Your task to perform on an android device: turn off location history Image 0: 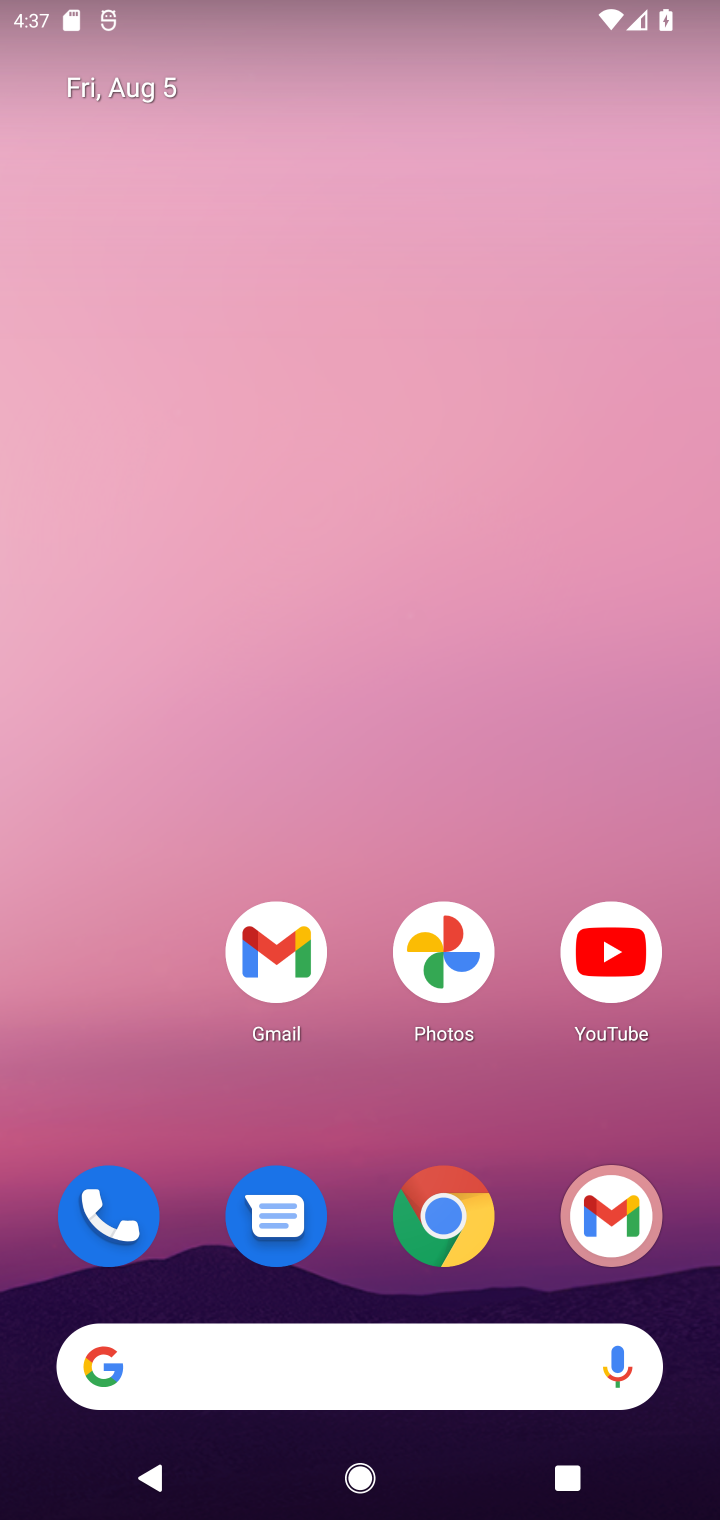
Step 0: drag from (164, 1118) to (305, 1)
Your task to perform on an android device: turn off location history Image 1: 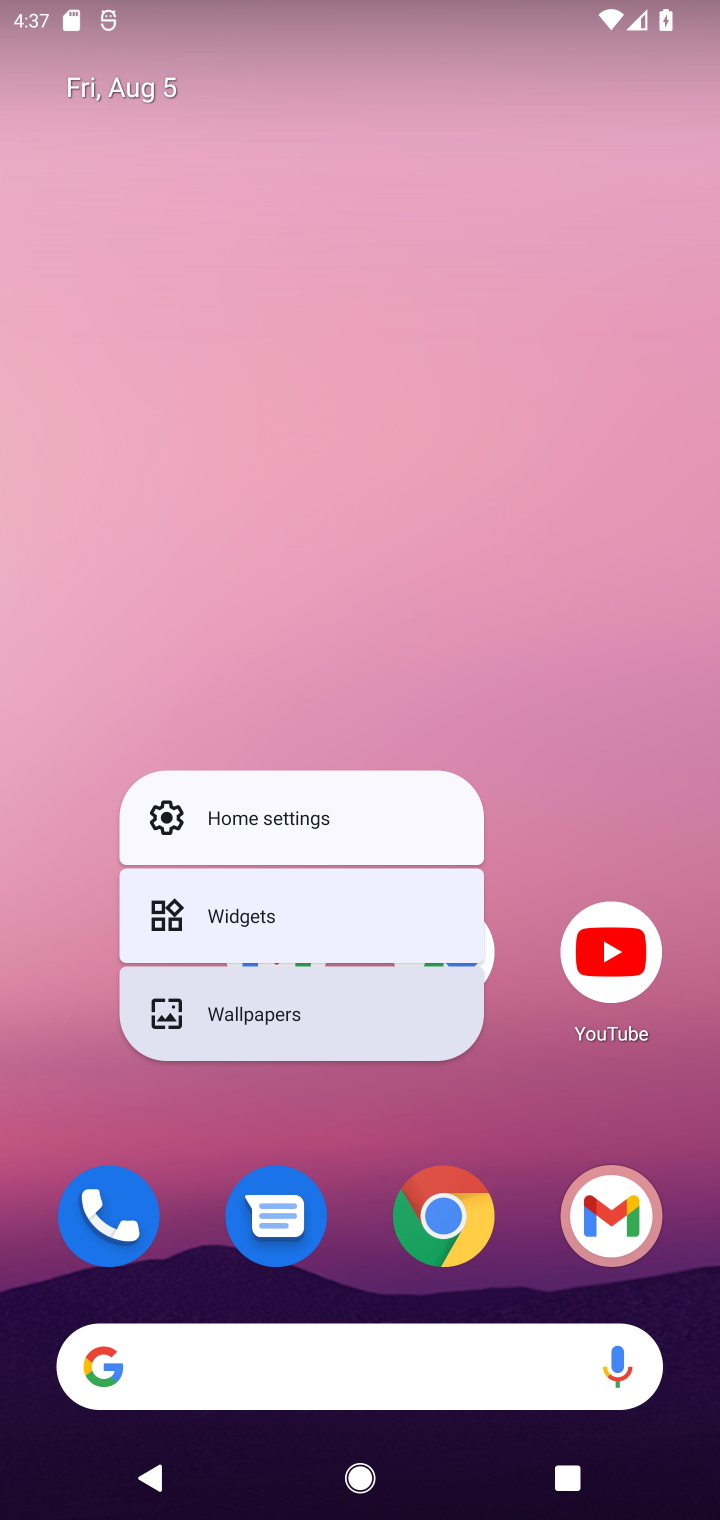
Step 1: click (381, 382)
Your task to perform on an android device: turn off location history Image 2: 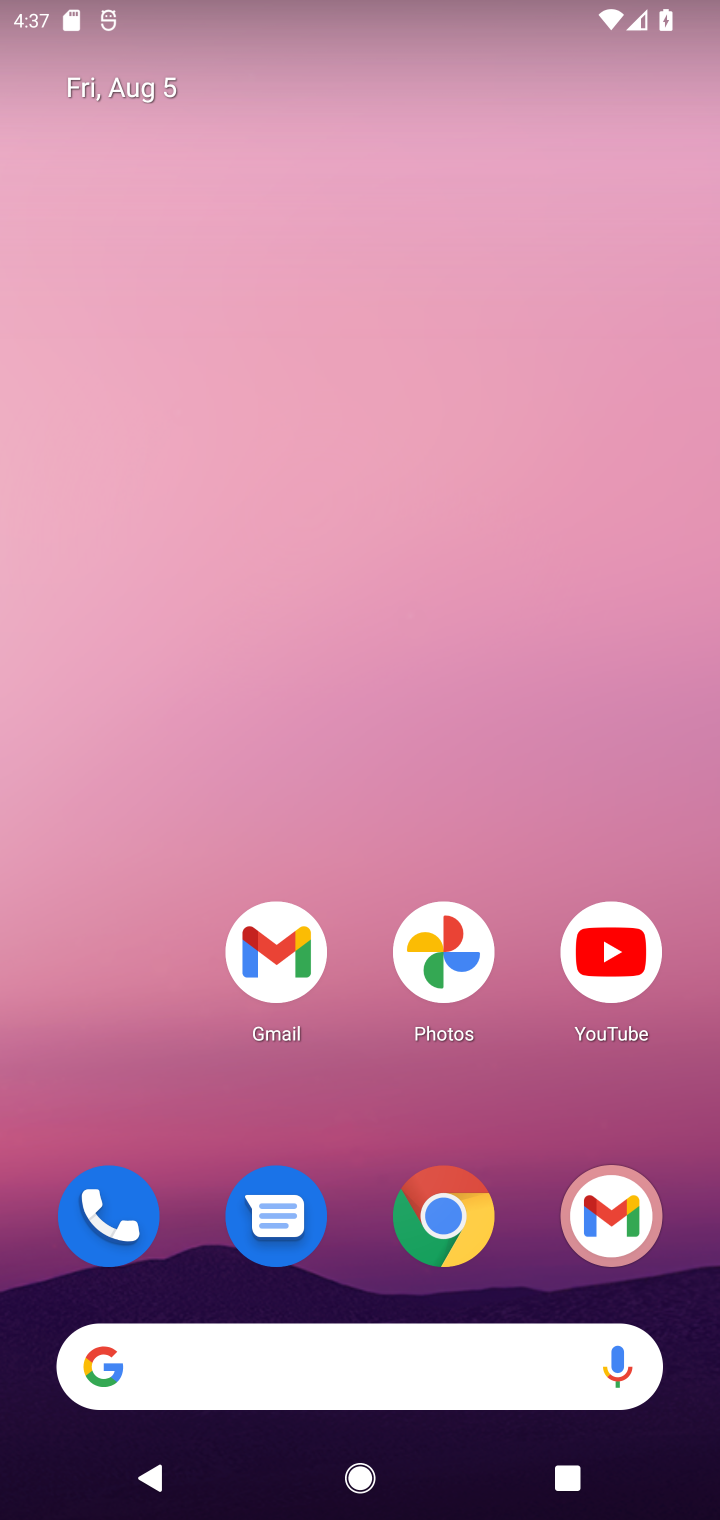
Step 2: drag from (141, 1071) to (335, 158)
Your task to perform on an android device: turn off location history Image 3: 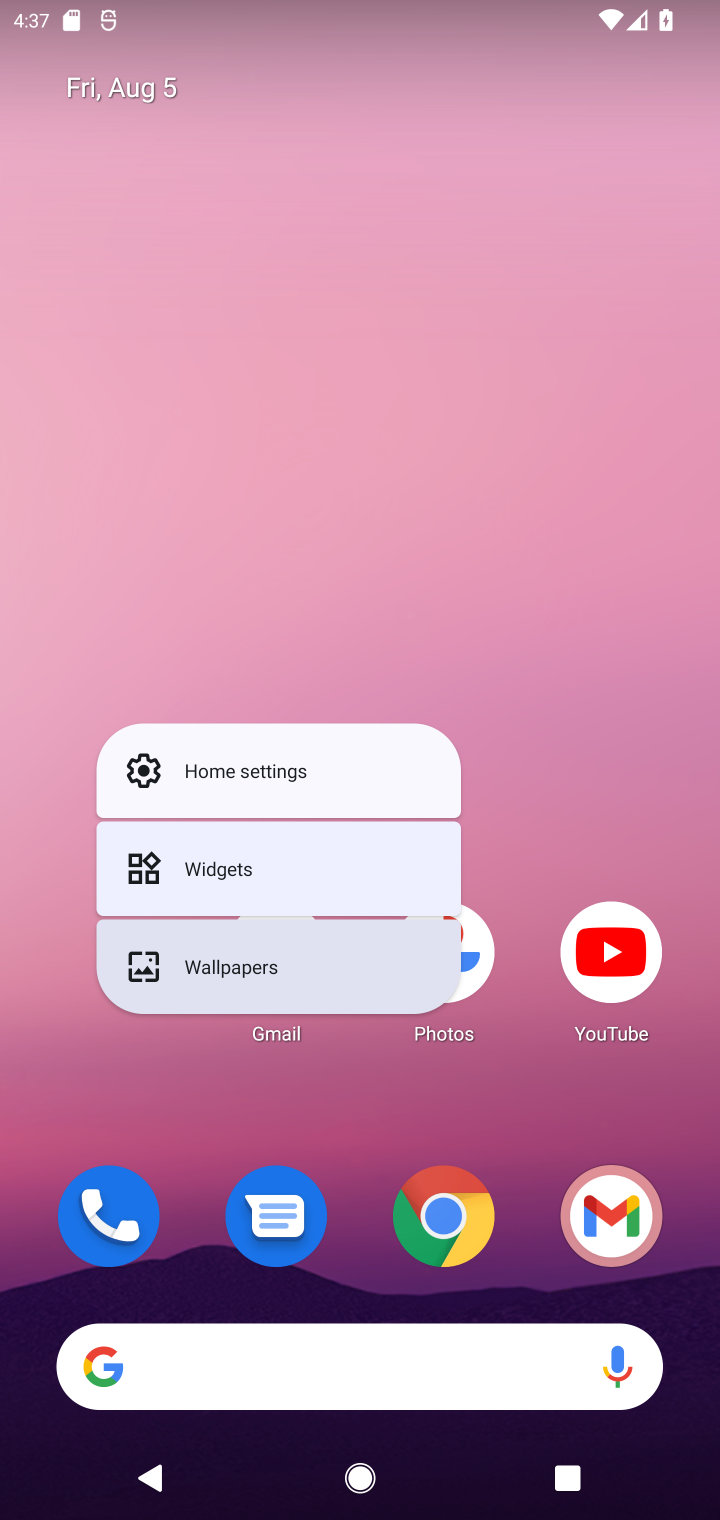
Step 3: click (547, 688)
Your task to perform on an android device: turn off location history Image 4: 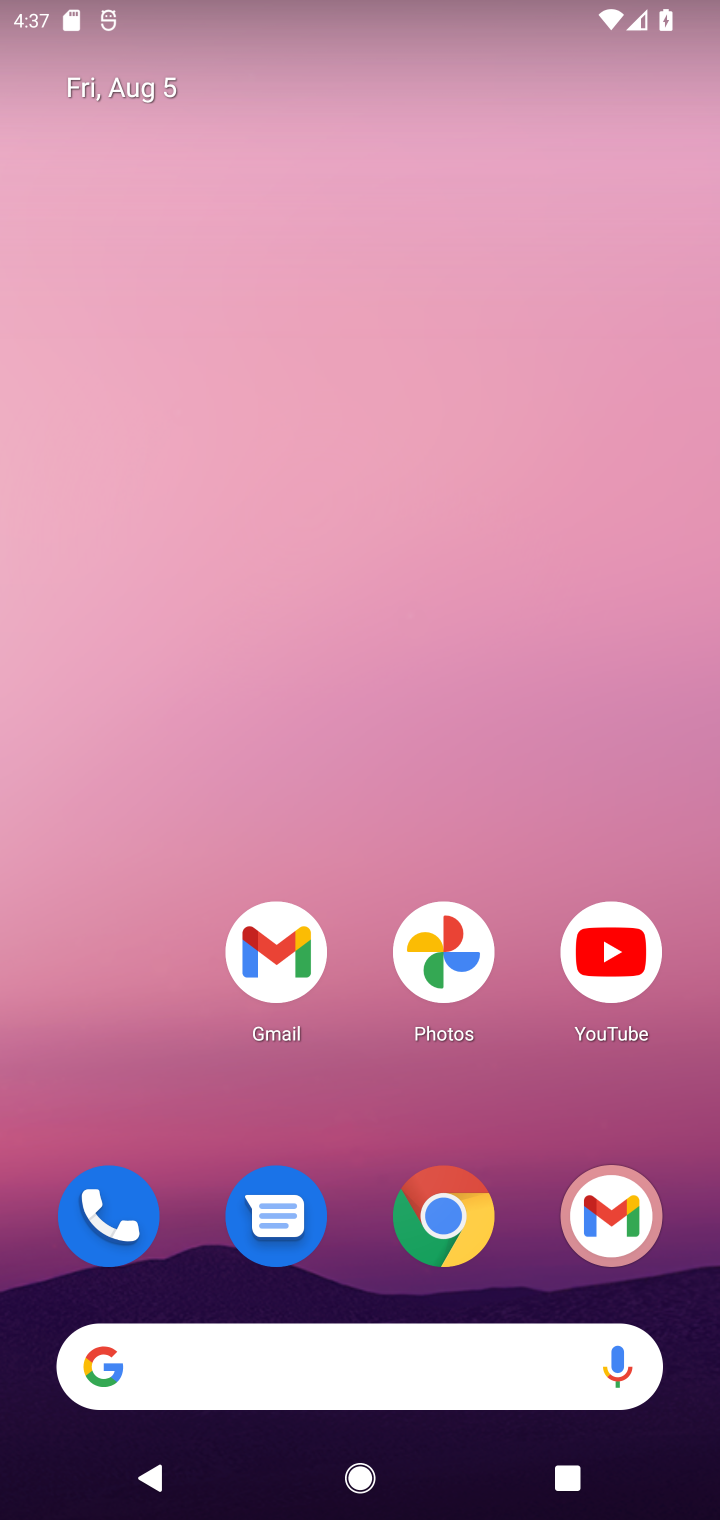
Step 4: drag from (199, 1089) to (342, 59)
Your task to perform on an android device: turn off location history Image 5: 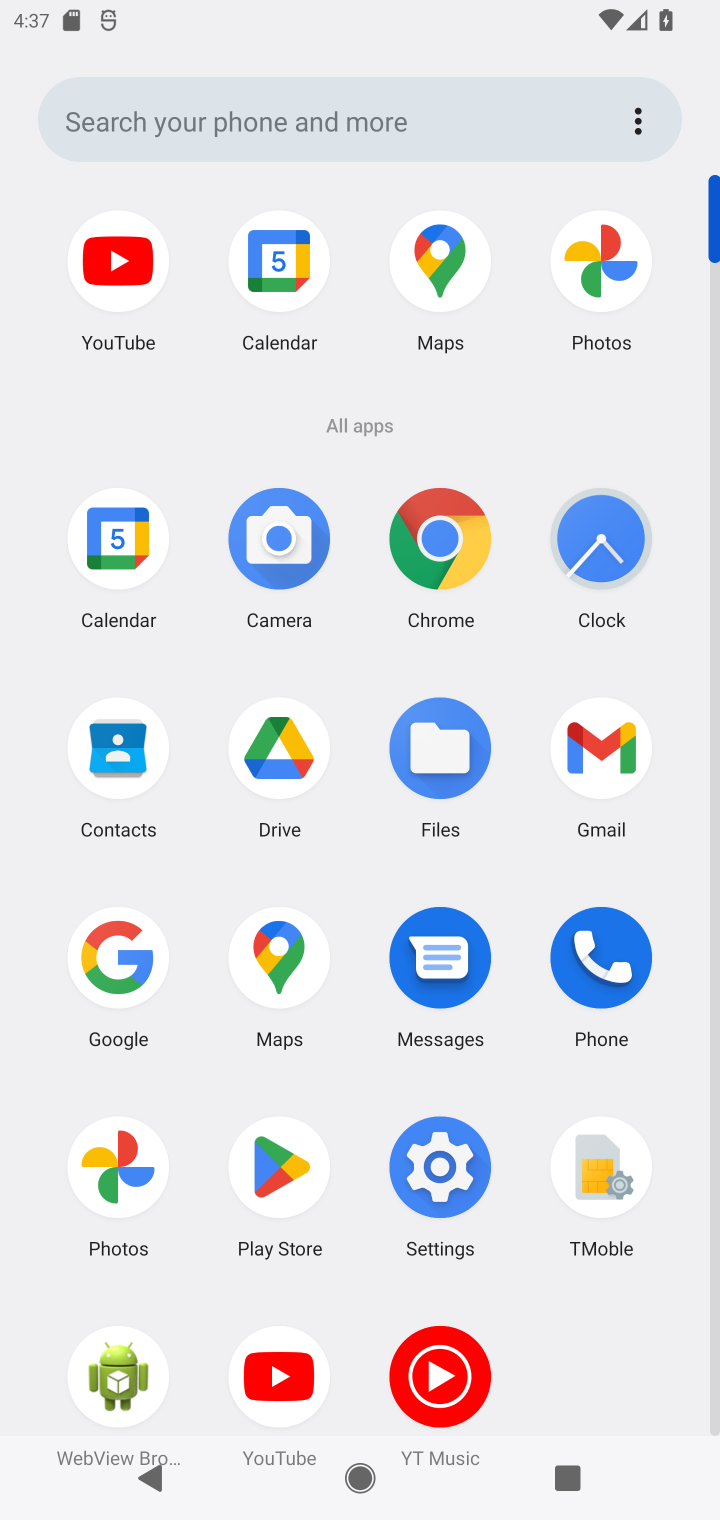
Step 5: click (429, 1167)
Your task to perform on an android device: turn off location history Image 6: 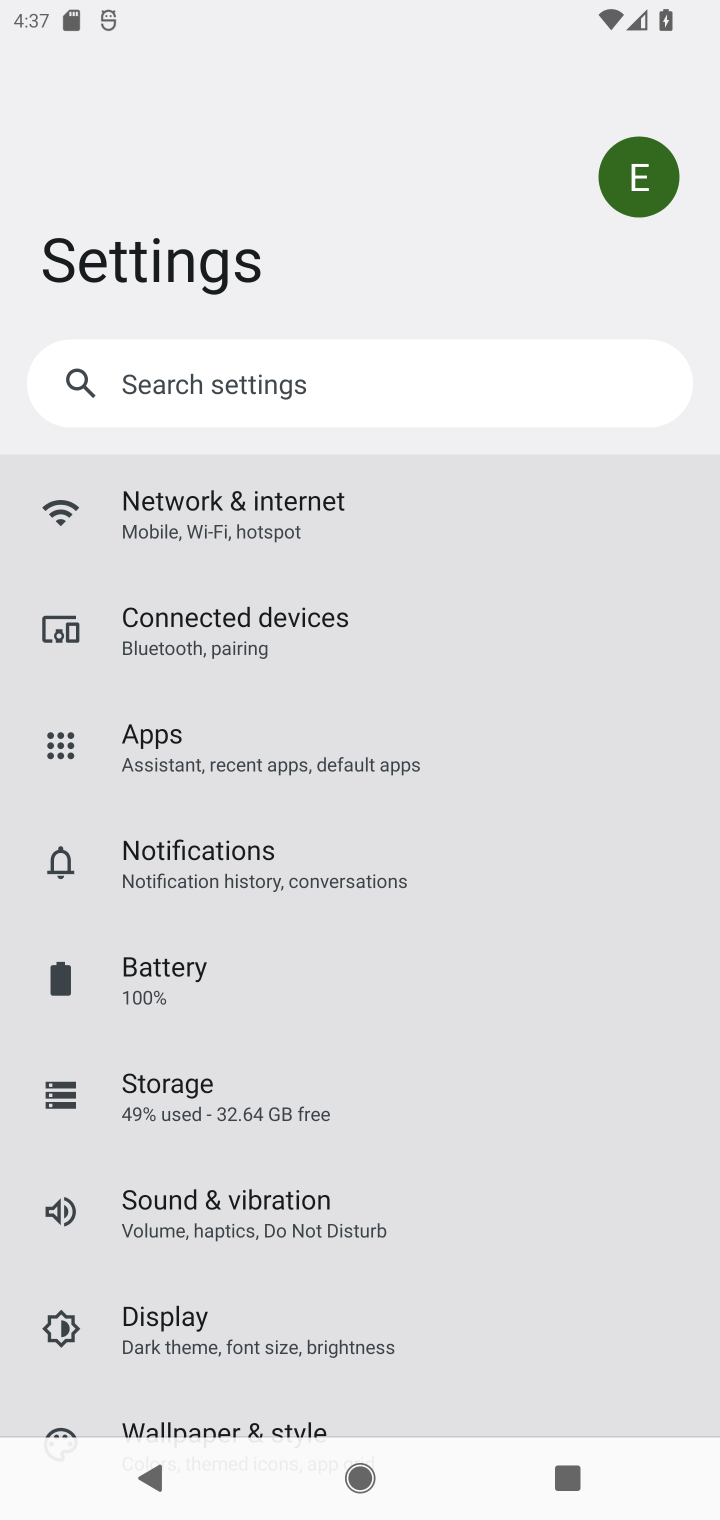
Step 6: drag from (574, 1239) to (607, 745)
Your task to perform on an android device: turn off location history Image 7: 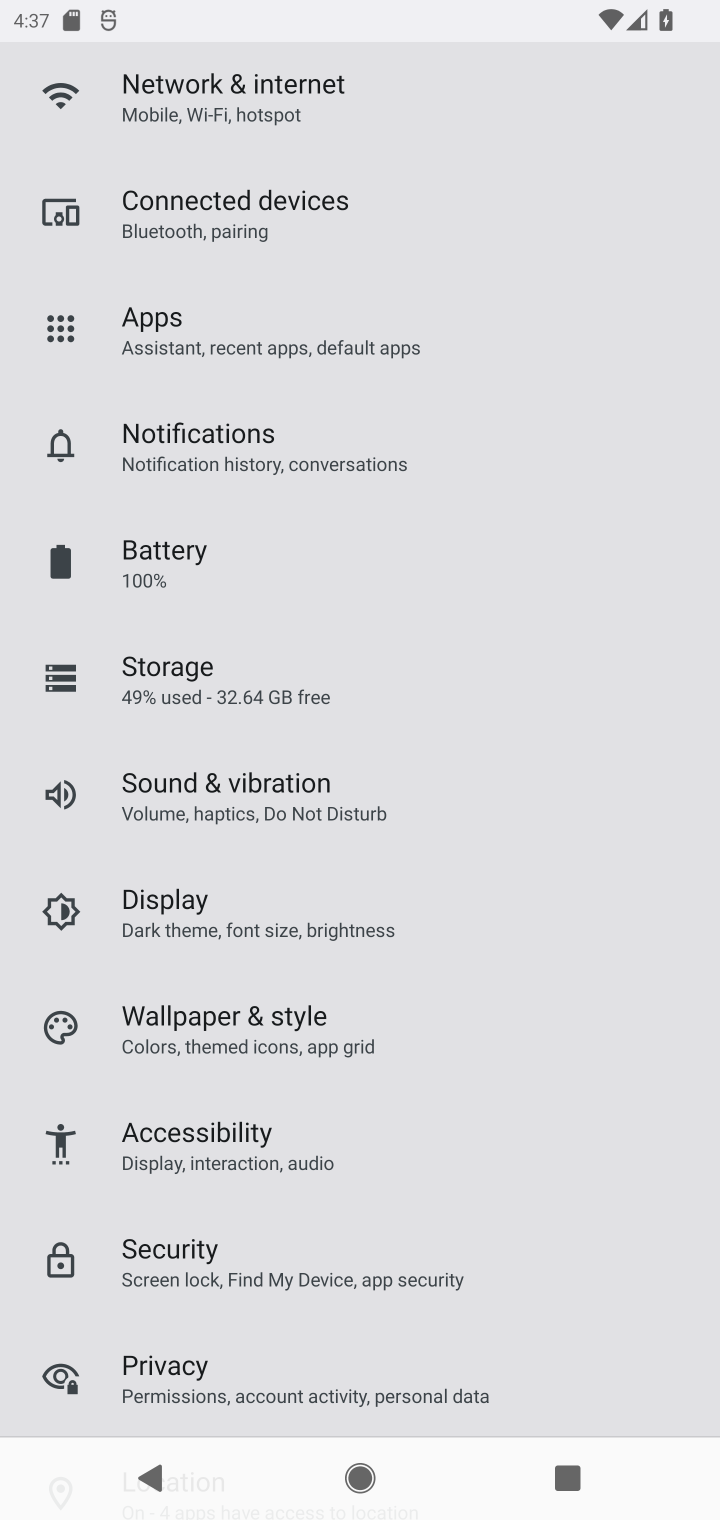
Step 7: drag from (615, 1207) to (640, 400)
Your task to perform on an android device: turn off location history Image 8: 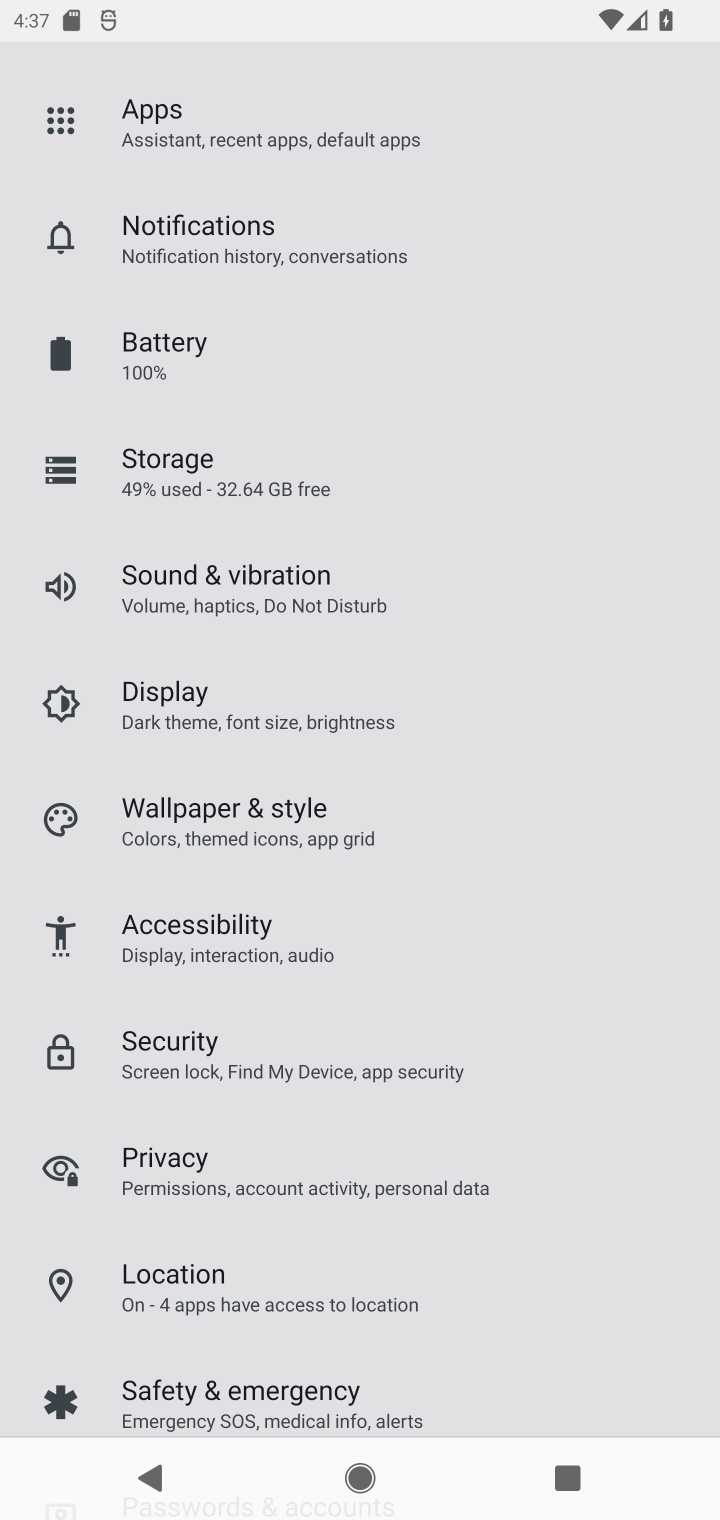
Step 8: click (296, 1298)
Your task to perform on an android device: turn off location history Image 9: 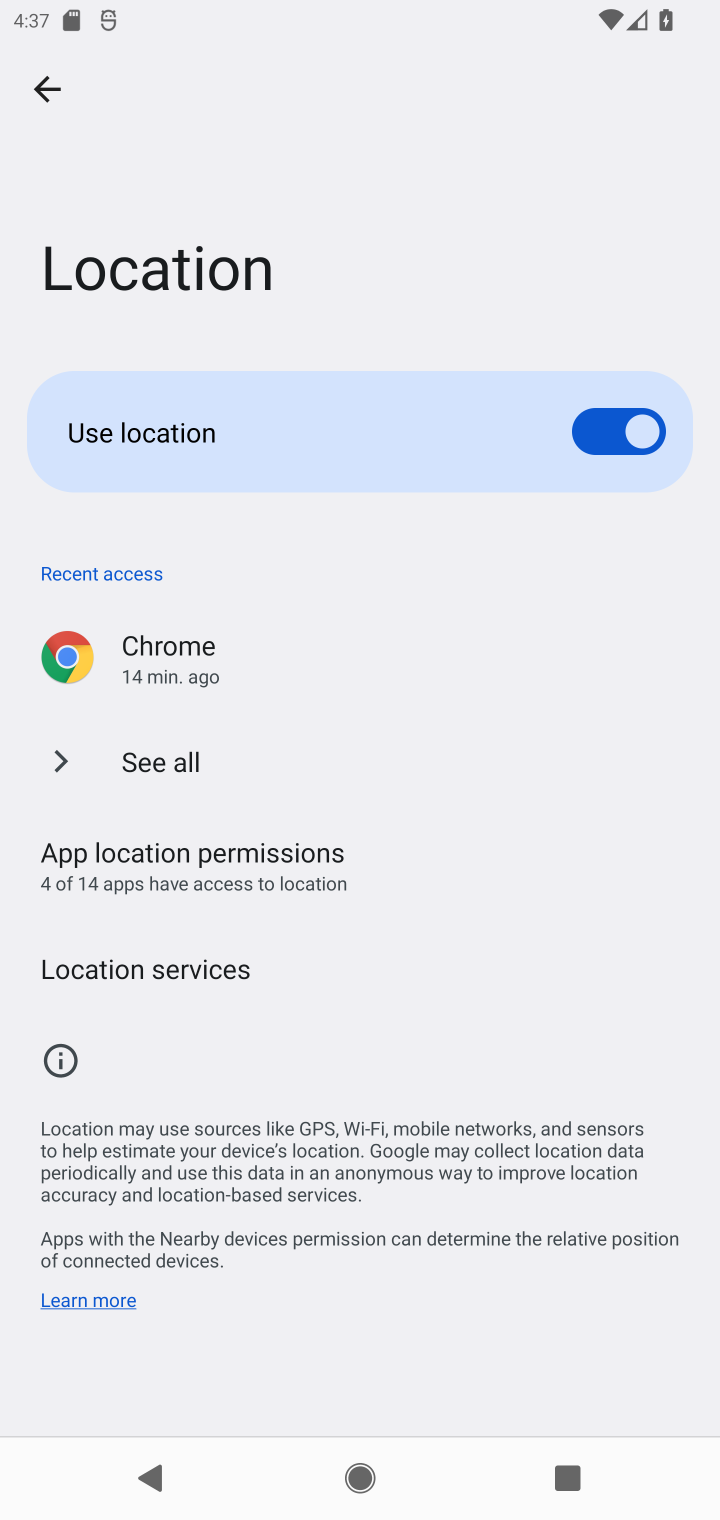
Step 9: click (637, 426)
Your task to perform on an android device: turn off location history Image 10: 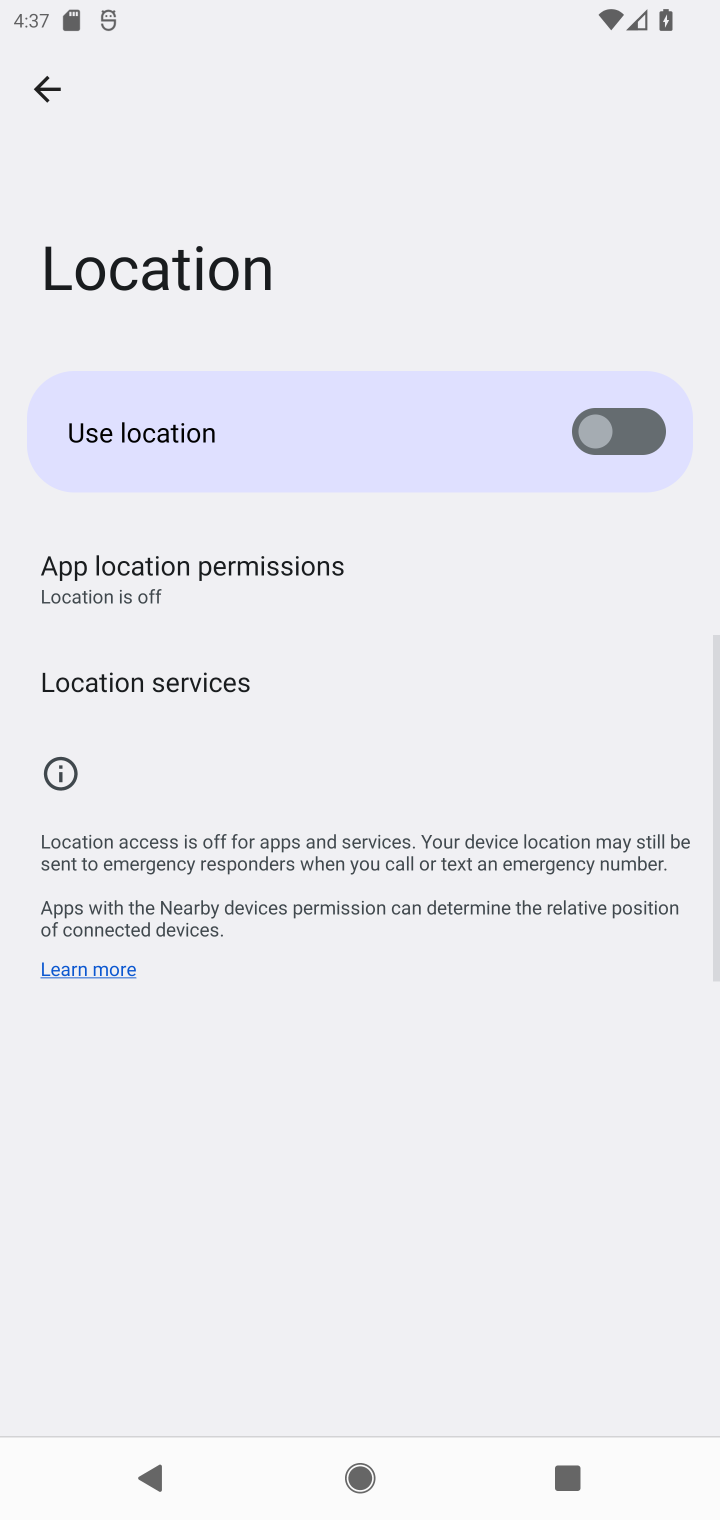
Step 10: task complete